Your task to perform on an android device: open app "Microsoft Authenticator" (install if not already installed) Image 0: 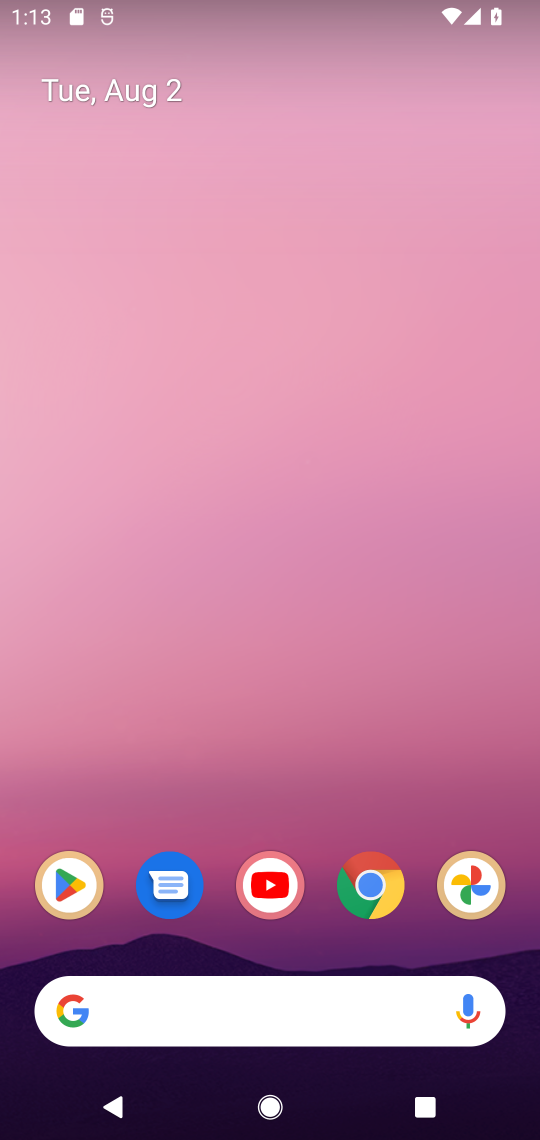
Step 0: click (61, 862)
Your task to perform on an android device: open app "Microsoft Authenticator" (install if not already installed) Image 1: 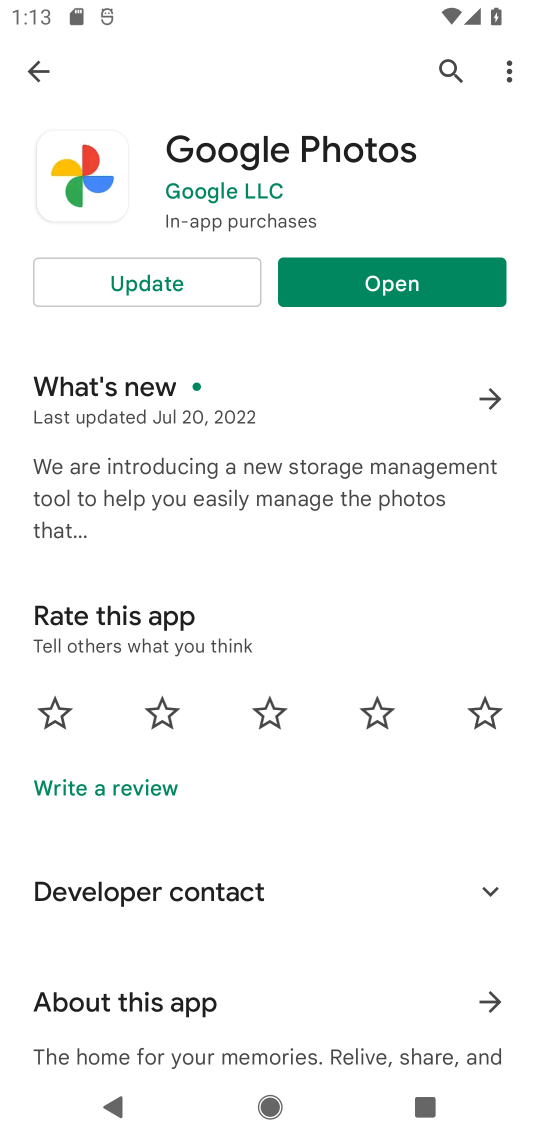
Step 1: click (445, 70)
Your task to perform on an android device: open app "Microsoft Authenticator" (install if not already installed) Image 2: 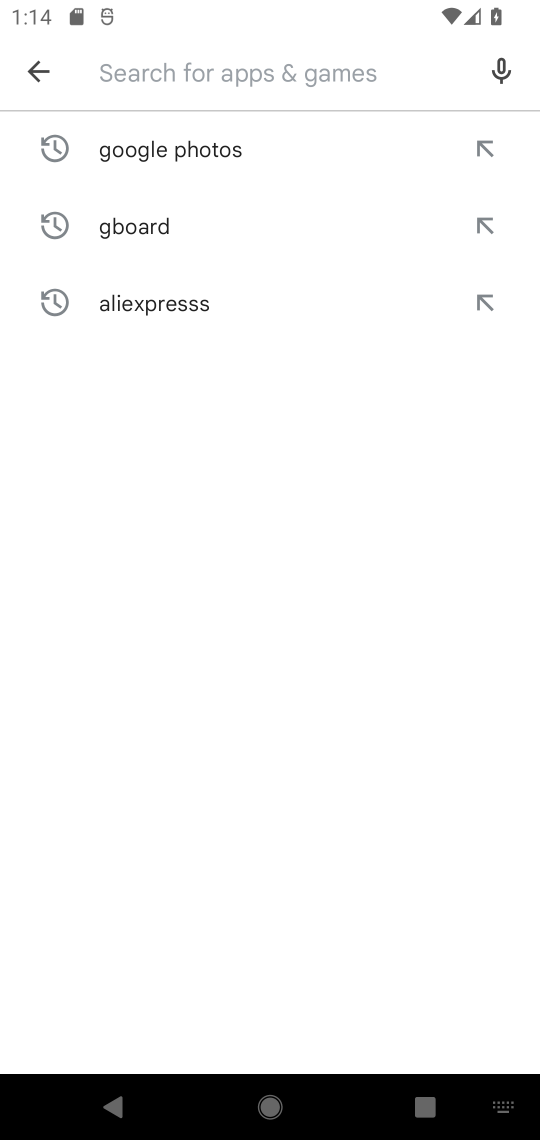
Step 2: type "microsoft authenticator"
Your task to perform on an android device: open app "Microsoft Authenticator" (install if not already installed) Image 3: 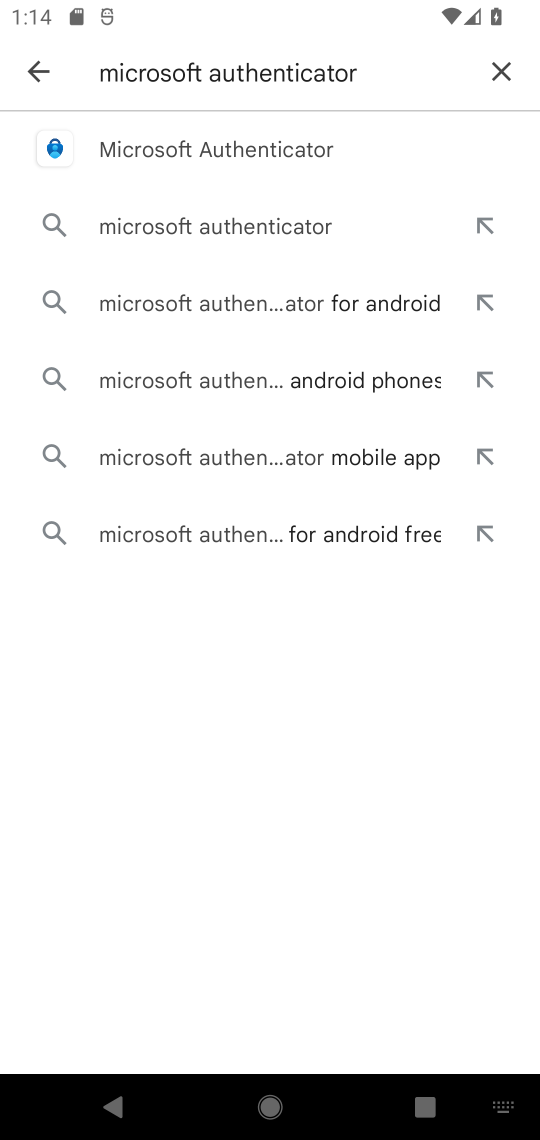
Step 3: click (381, 154)
Your task to perform on an android device: open app "Microsoft Authenticator" (install if not already installed) Image 4: 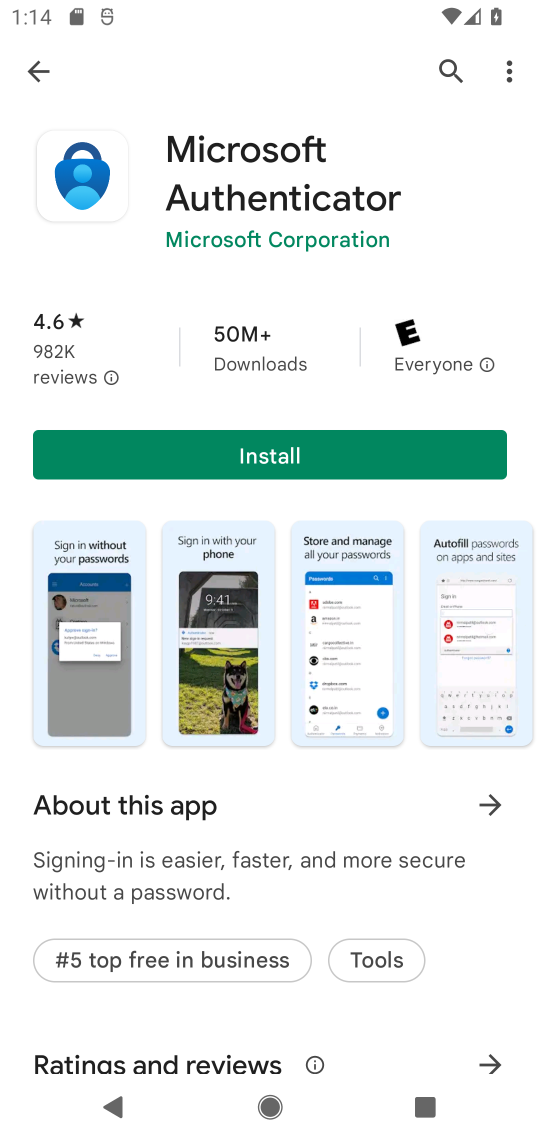
Step 4: click (462, 445)
Your task to perform on an android device: open app "Microsoft Authenticator" (install if not already installed) Image 5: 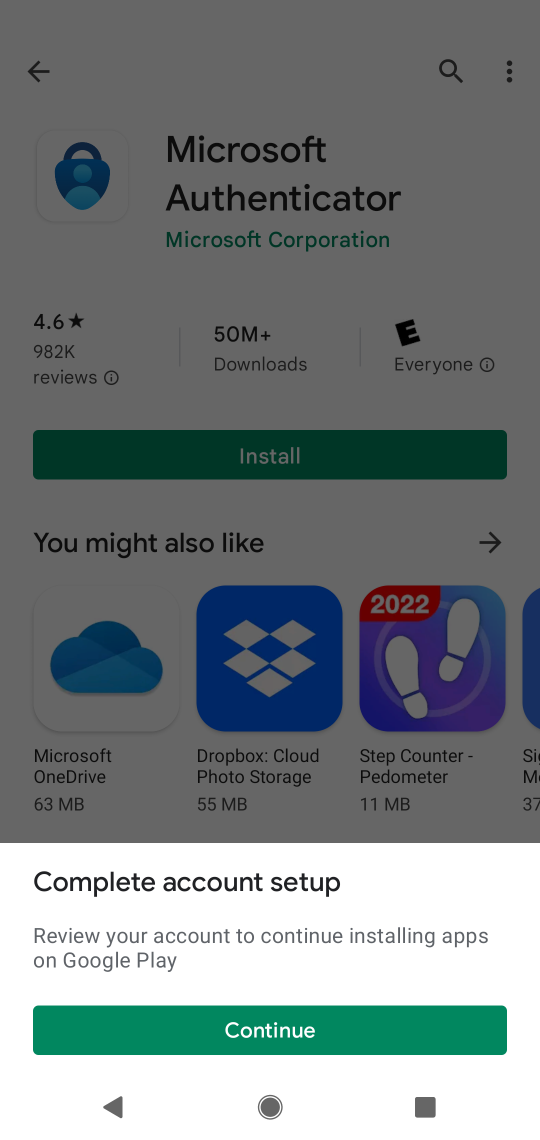
Step 5: click (311, 1036)
Your task to perform on an android device: open app "Microsoft Authenticator" (install if not already installed) Image 6: 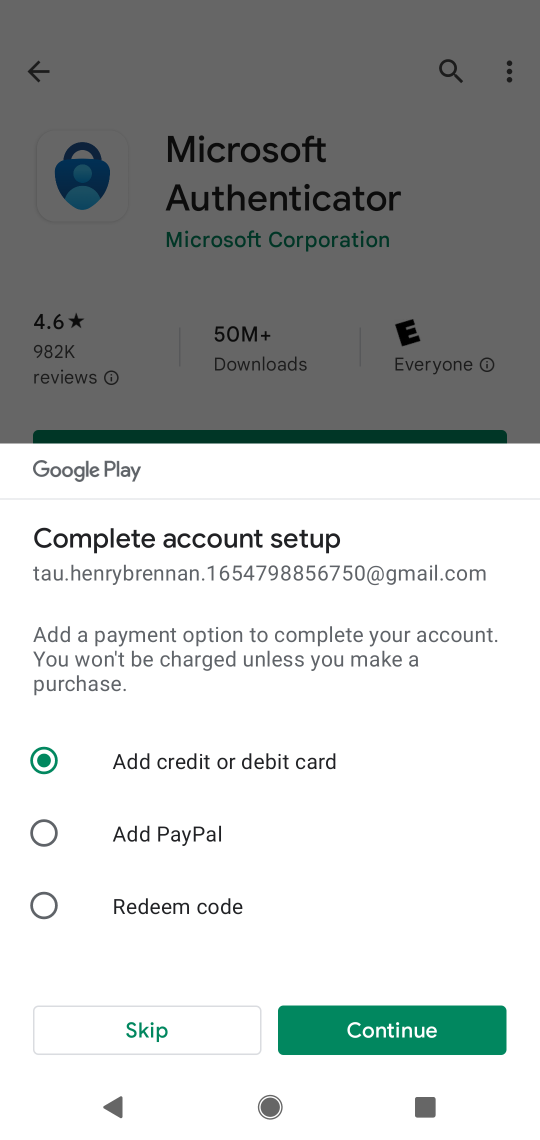
Step 6: click (135, 1034)
Your task to perform on an android device: open app "Microsoft Authenticator" (install if not already installed) Image 7: 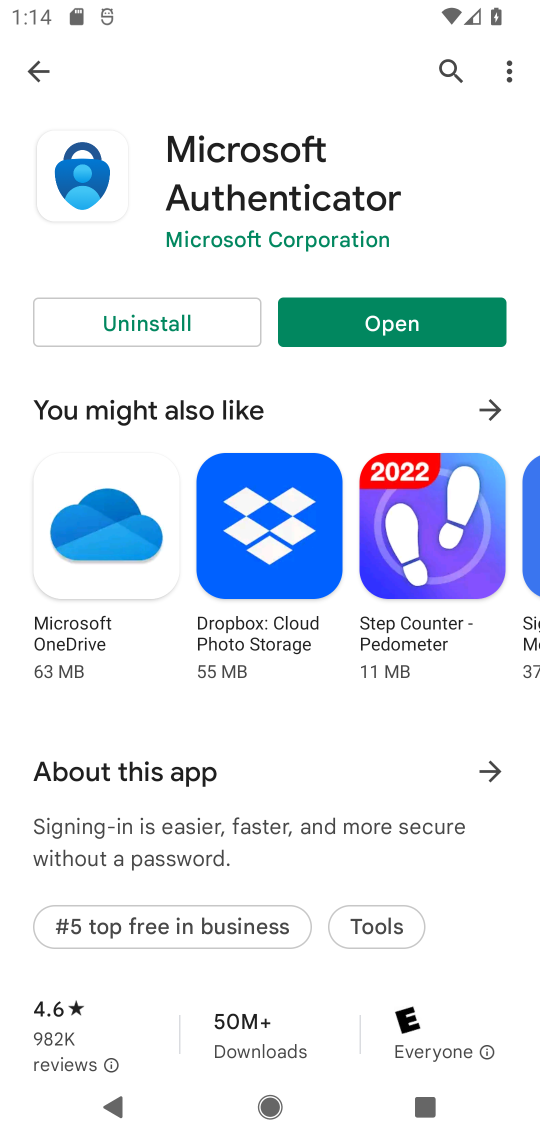
Step 7: click (403, 328)
Your task to perform on an android device: open app "Microsoft Authenticator" (install if not already installed) Image 8: 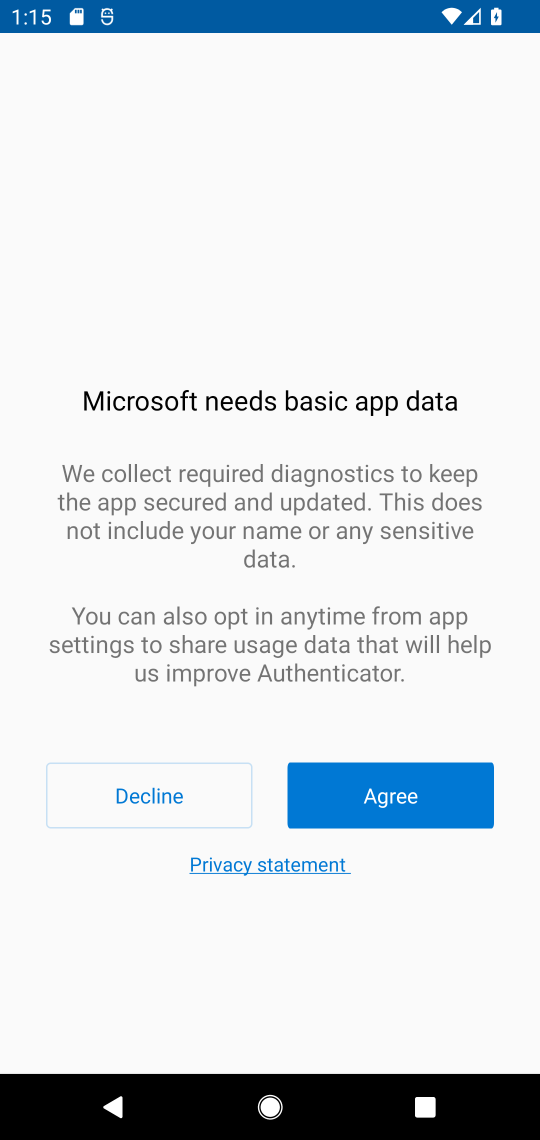
Step 8: task complete